Your task to perform on an android device: Go to sound settings Image 0: 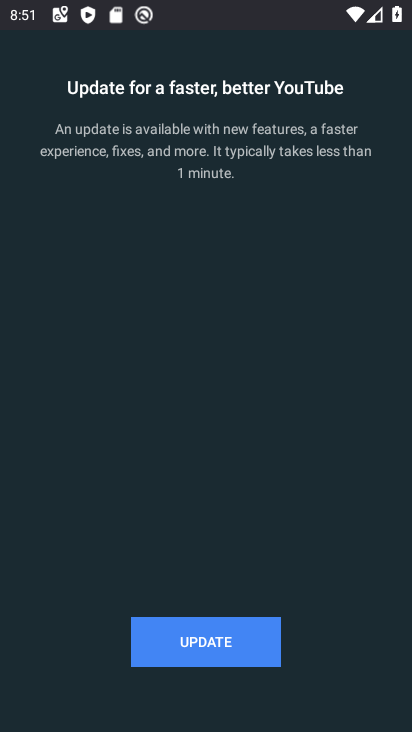
Step 0: press back button
Your task to perform on an android device: Go to sound settings Image 1: 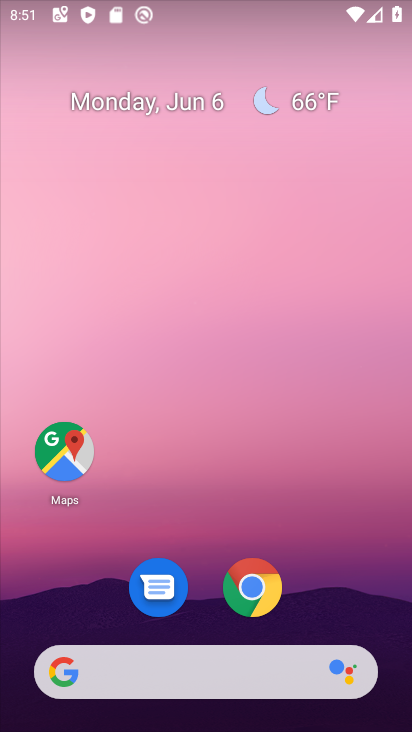
Step 1: drag from (144, 633) to (297, 154)
Your task to perform on an android device: Go to sound settings Image 2: 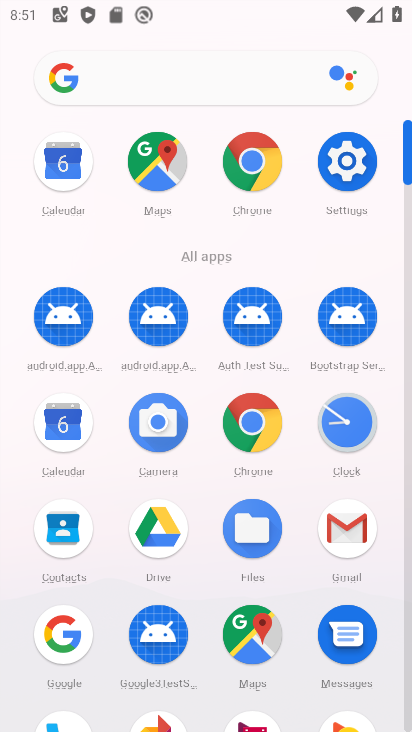
Step 2: drag from (195, 605) to (296, 309)
Your task to perform on an android device: Go to sound settings Image 3: 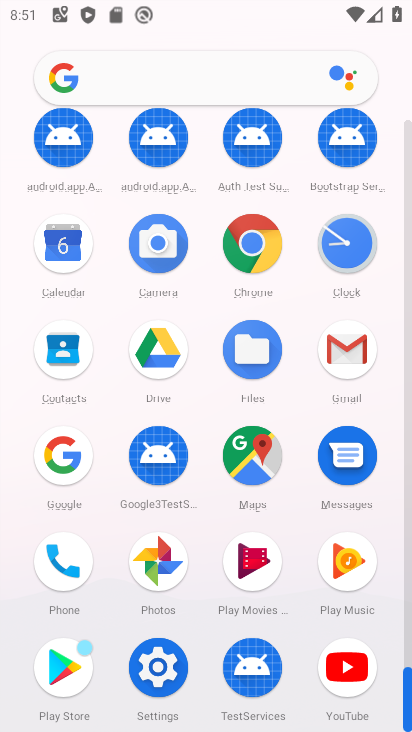
Step 3: click (149, 676)
Your task to perform on an android device: Go to sound settings Image 4: 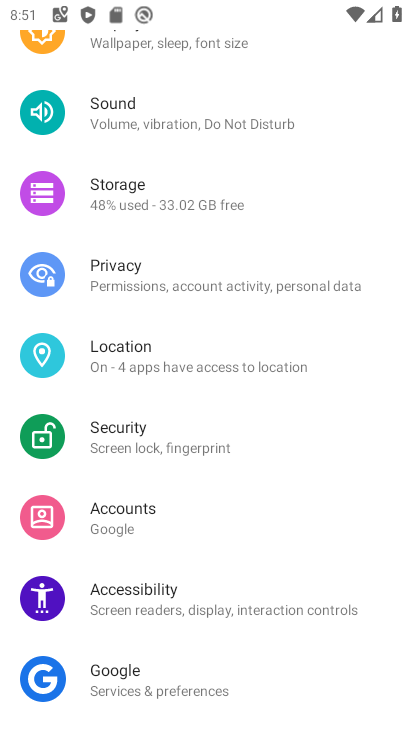
Step 4: drag from (192, 185) to (153, 584)
Your task to perform on an android device: Go to sound settings Image 5: 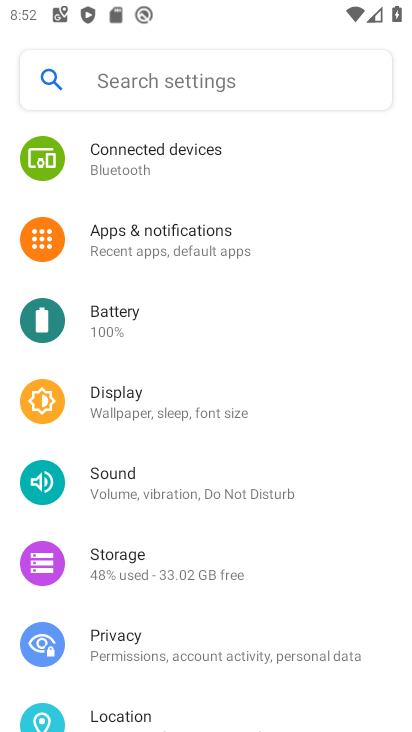
Step 5: click (150, 500)
Your task to perform on an android device: Go to sound settings Image 6: 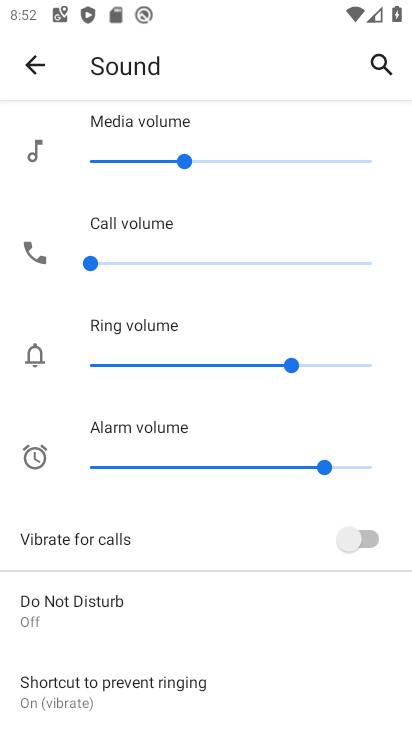
Step 6: task complete